Your task to perform on an android device: Open calendar and show me the third week of next month Image 0: 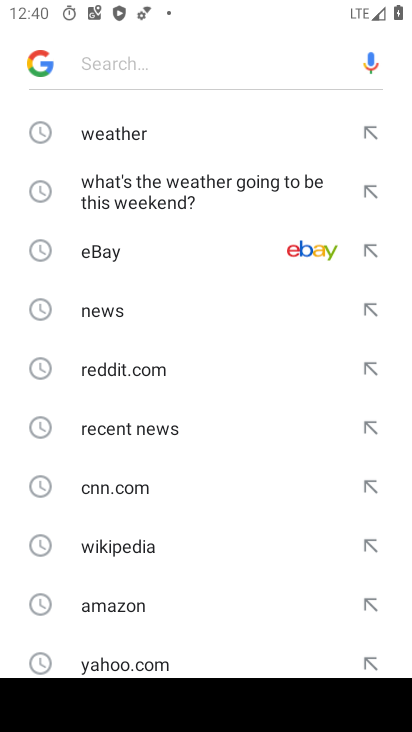
Step 0: press home button
Your task to perform on an android device: Open calendar and show me the third week of next month Image 1: 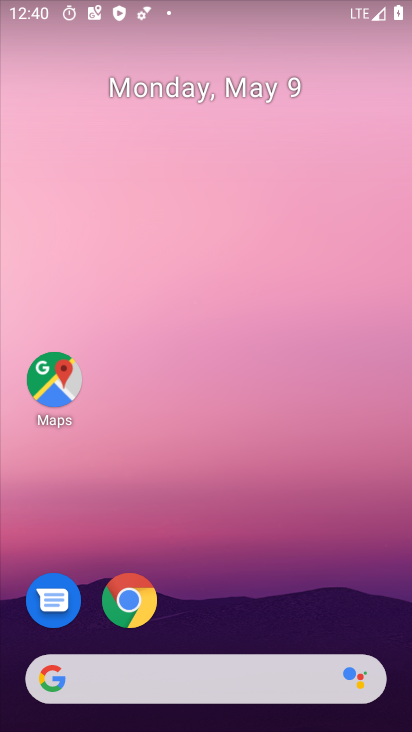
Step 1: drag from (225, 586) to (179, 163)
Your task to perform on an android device: Open calendar and show me the third week of next month Image 2: 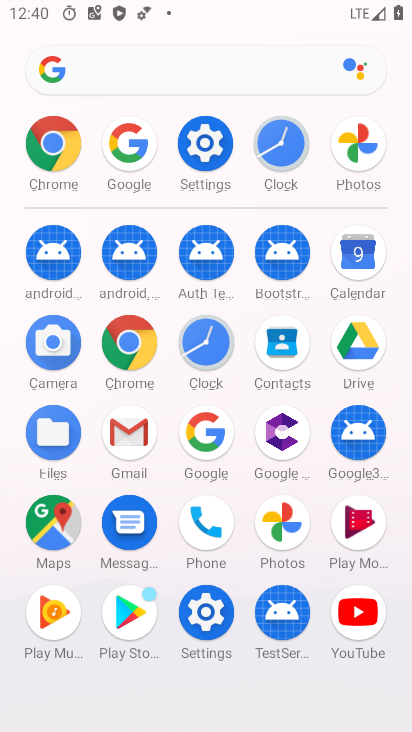
Step 2: click (355, 269)
Your task to perform on an android device: Open calendar and show me the third week of next month Image 3: 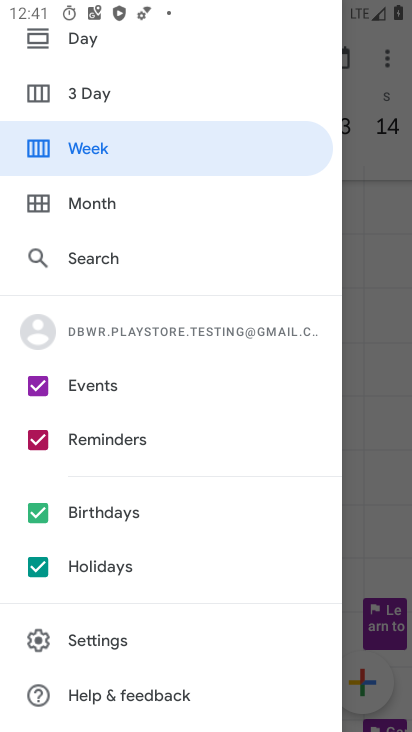
Step 3: click (107, 172)
Your task to perform on an android device: Open calendar and show me the third week of next month Image 4: 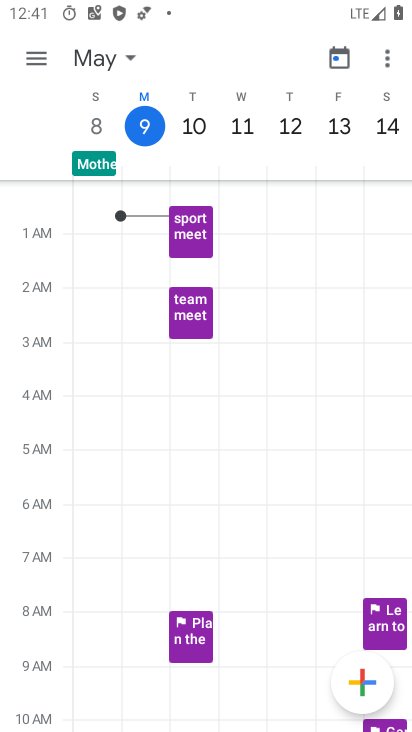
Step 4: click (128, 58)
Your task to perform on an android device: Open calendar and show me the third week of next month Image 5: 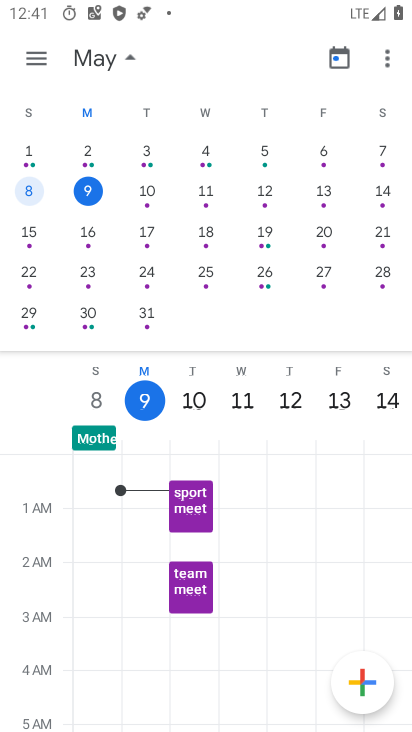
Step 5: drag from (274, 251) to (16, 276)
Your task to perform on an android device: Open calendar and show me the third week of next month Image 6: 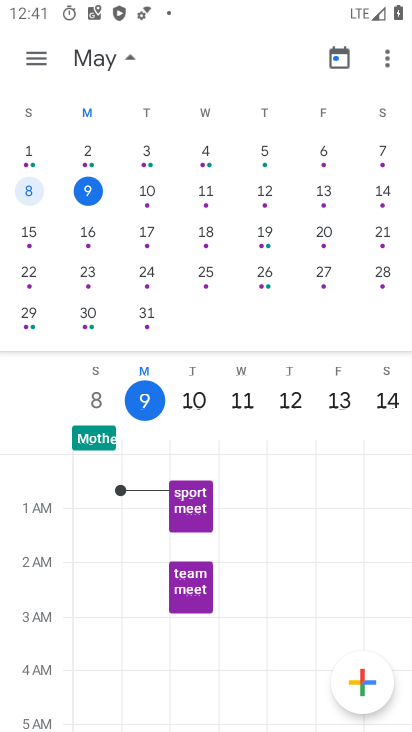
Step 6: drag from (307, 241) to (18, 284)
Your task to perform on an android device: Open calendar and show me the third week of next month Image 7: 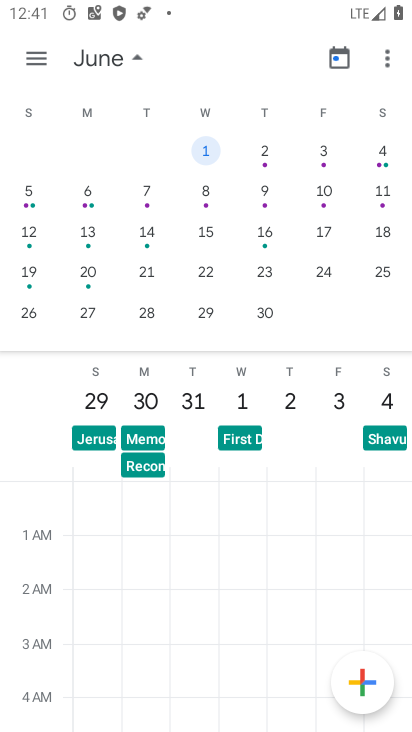
Step 7: click (30, 266)
Your task to perform on an android device: Open calendar and show me the third week of next month Image 8: 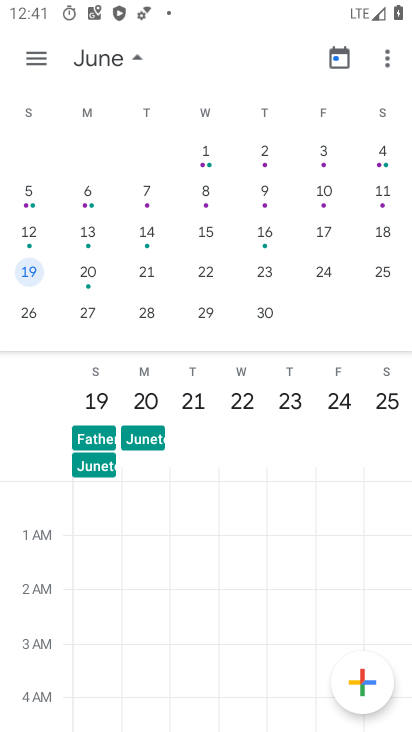
Step 8: click (30, 244)
Your task to perform on an android device: Open calendar and show me the third week of next month Image 9: 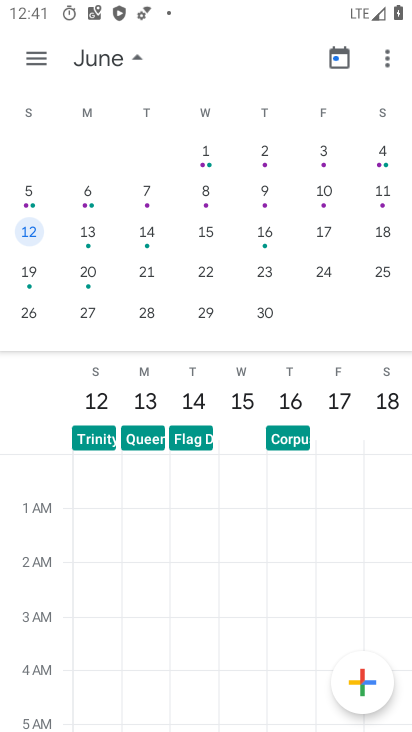
Step 9: task complete